Your task to perform on an android device: Open Google Maps and go to "Timeline" Image 0: 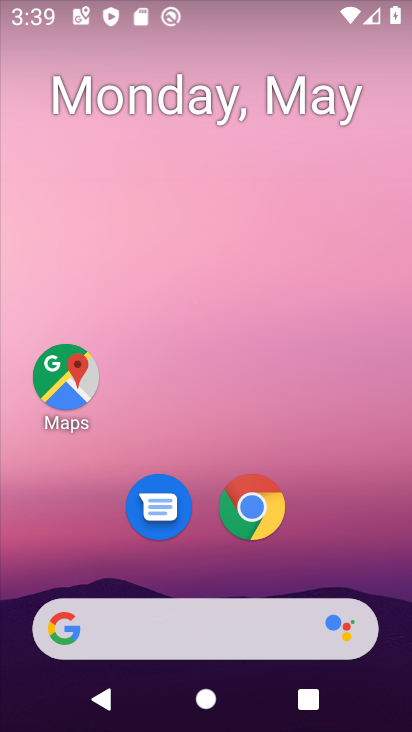
Step 0: click (63, 374)
Your task to perform on an android device: Open Google Maps and go to "Timeline" Image 1: 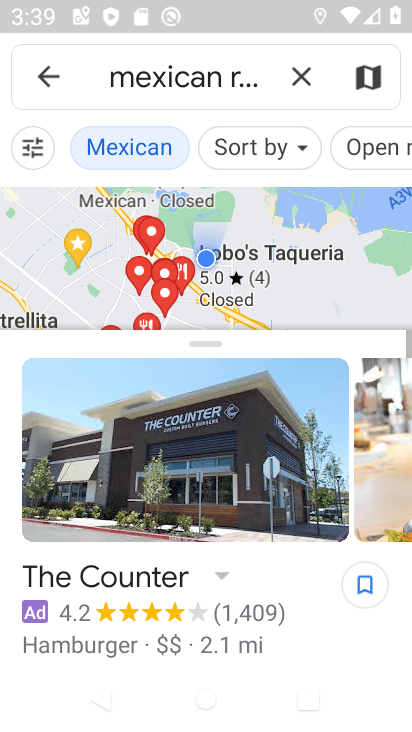
Step 1: click (50, 67)
Your task to perform on an android device: Open Google Maps and go to "Timeline" Image 2: 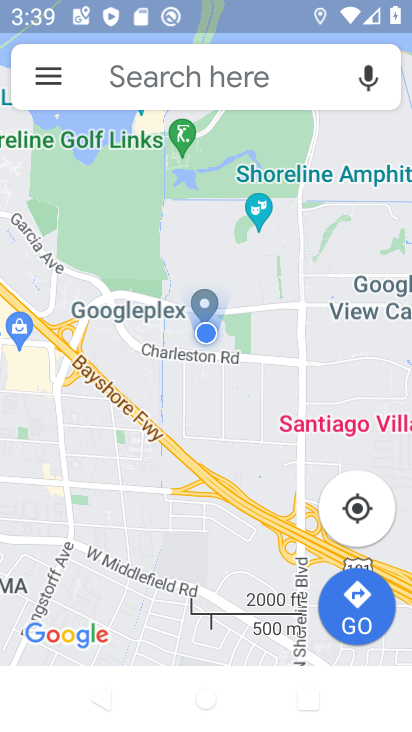
Step 2: click (50, 67)
Your task to perform on an android device: Open Google Maps and go to "Timeline" Image 3: 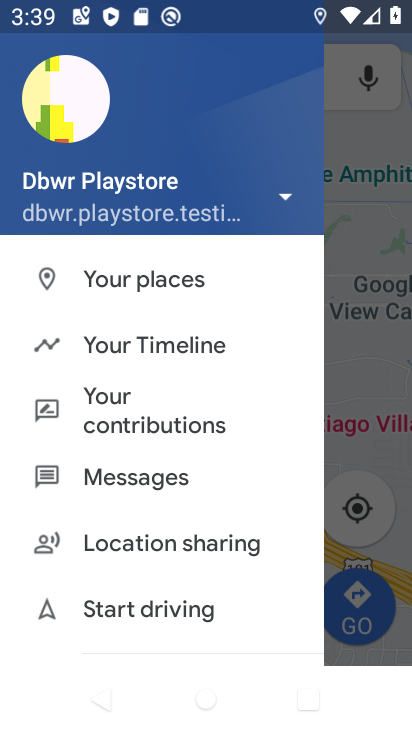
Step 3: click (152, 351)
Your task to perform on an android device: Open Google Maps and go to "Timeline" Image 4: 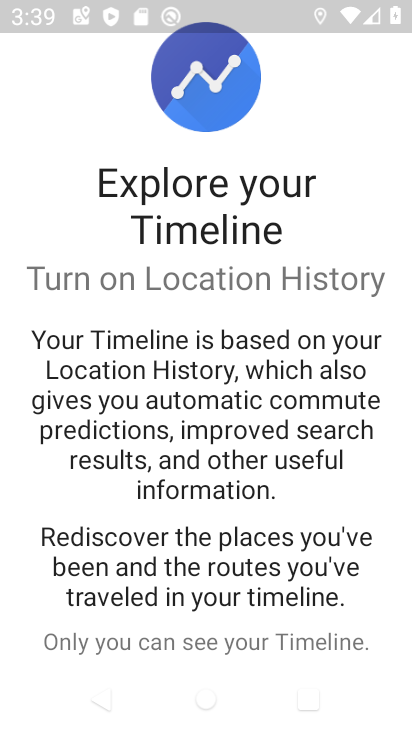
Step 4: drag from (205, 594) to (320, 90)
Your task to perform on an android device: Open Google Maps and go to "Timeline" Image 5: 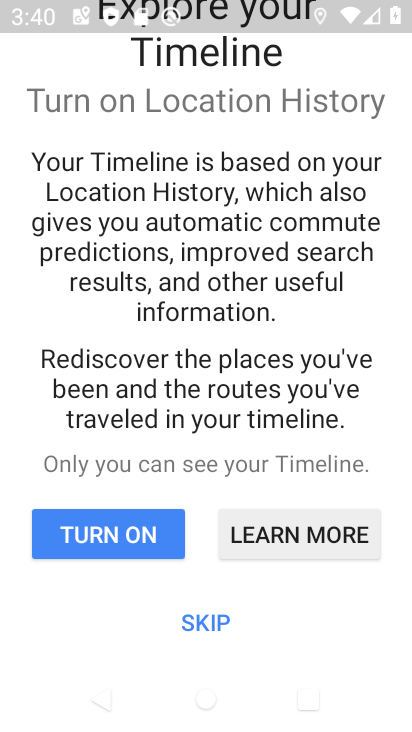
Step 5: click (116, 529)
Your task to perform on an android device: Open Google Maps and go to "Timeline" Image 6: 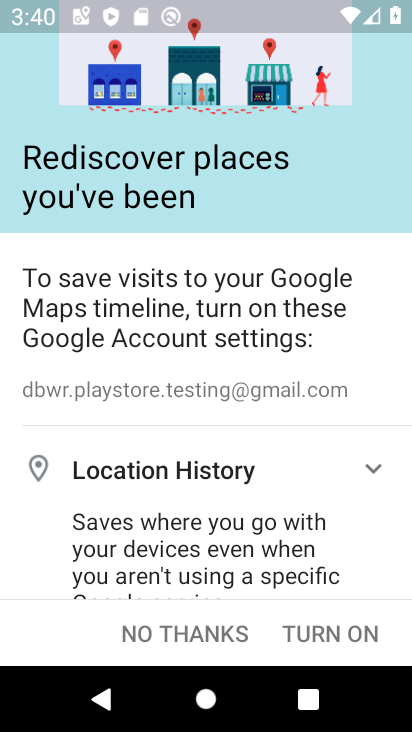
Step 6: click (324, 634)
Your task to perform on an android device: Open Google Maps and go to "Timeline" Image 7: 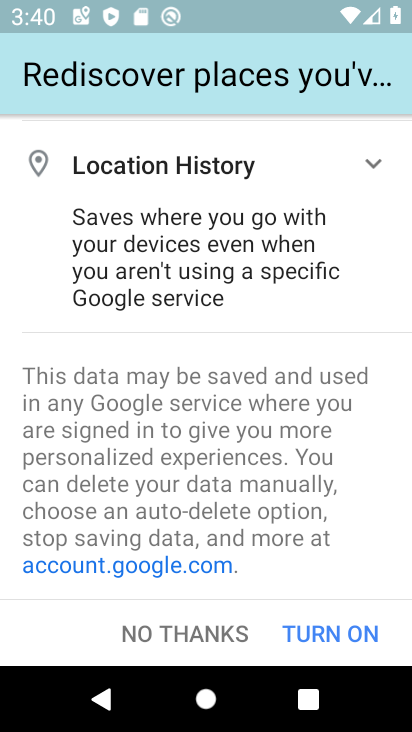
Step 7: click (324, 634)
Your task to perform on an android device: Open Google Maps and go to "Timeline" Image 8: 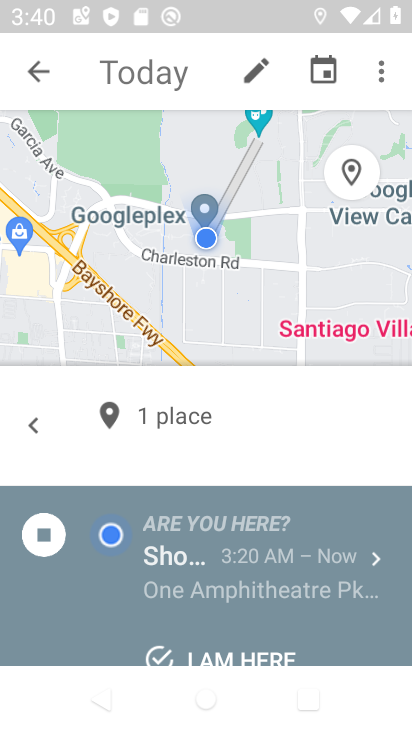
Step 8: task complete